Your task to perform on an android device: install app "Upside-Cash back on gas & food" Image 0: 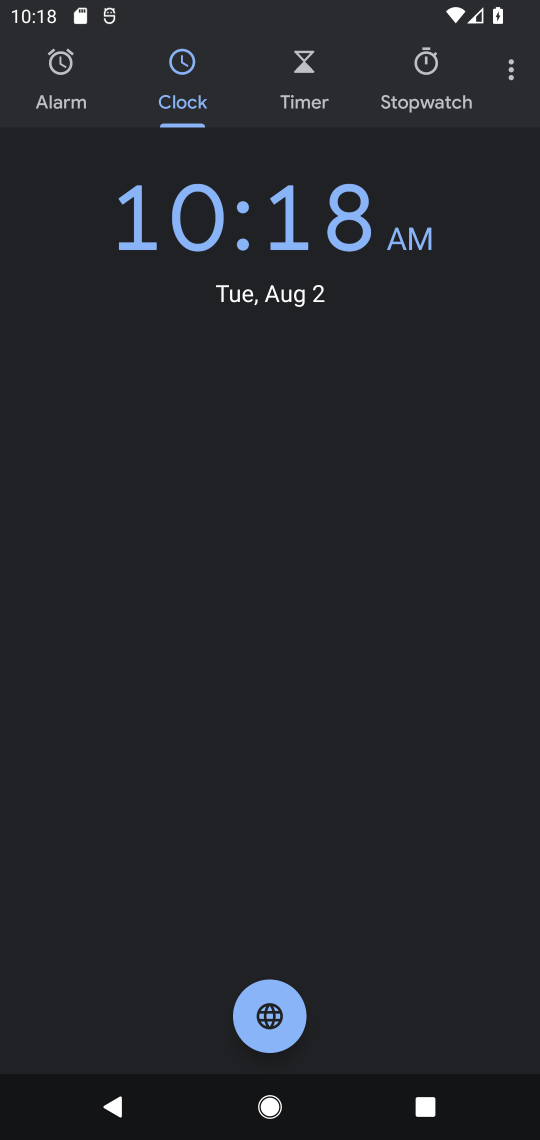
Step 0: press home button
Your task to perform on an android device: install app "Upside-Cash back on gas & food" Image 1: 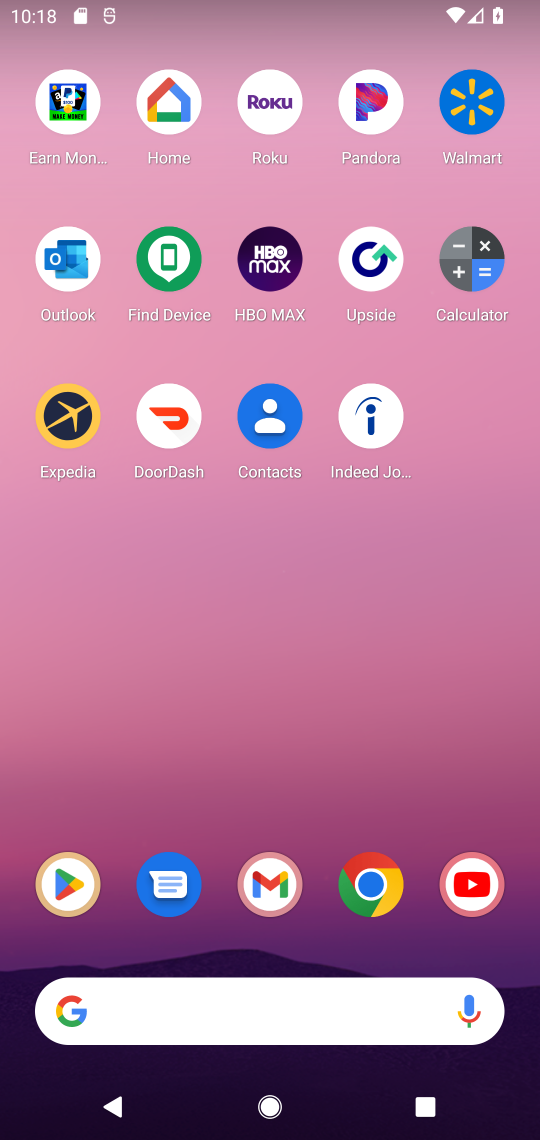
Step 1: click (72, 874)
Your task to perform on an android device: install app "Upside-Cash back on gas & food" Image 2: 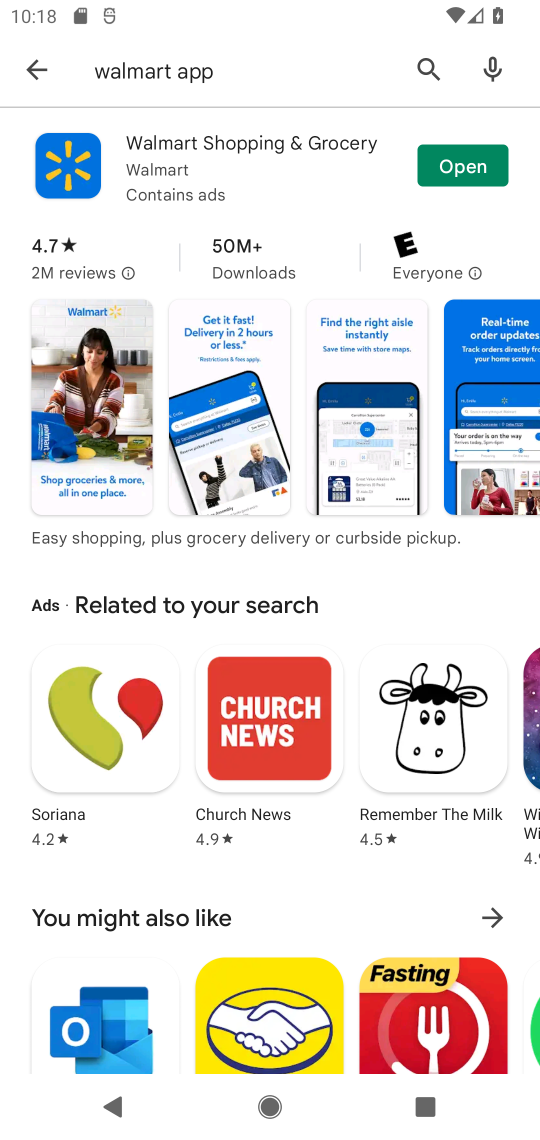
Step 2: click (216, 68)
Your task to perform on an android device: install app "Upside-Cash back on gas & food" Image 3: 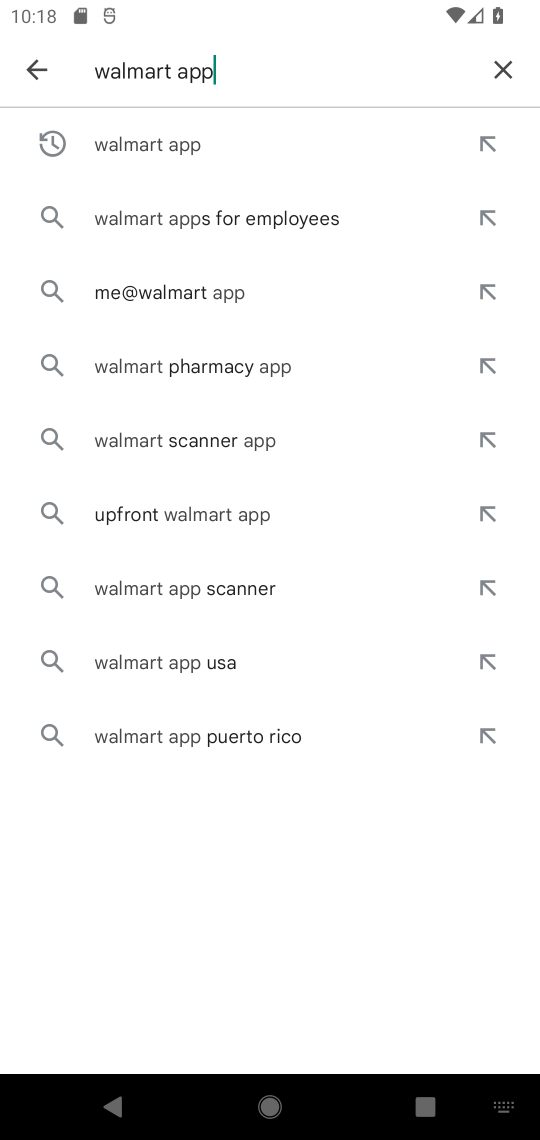
Step 3: click (500, 85)
Your task to perform on an android device: install app "Upside-Cash back on gas & food" Image 4: 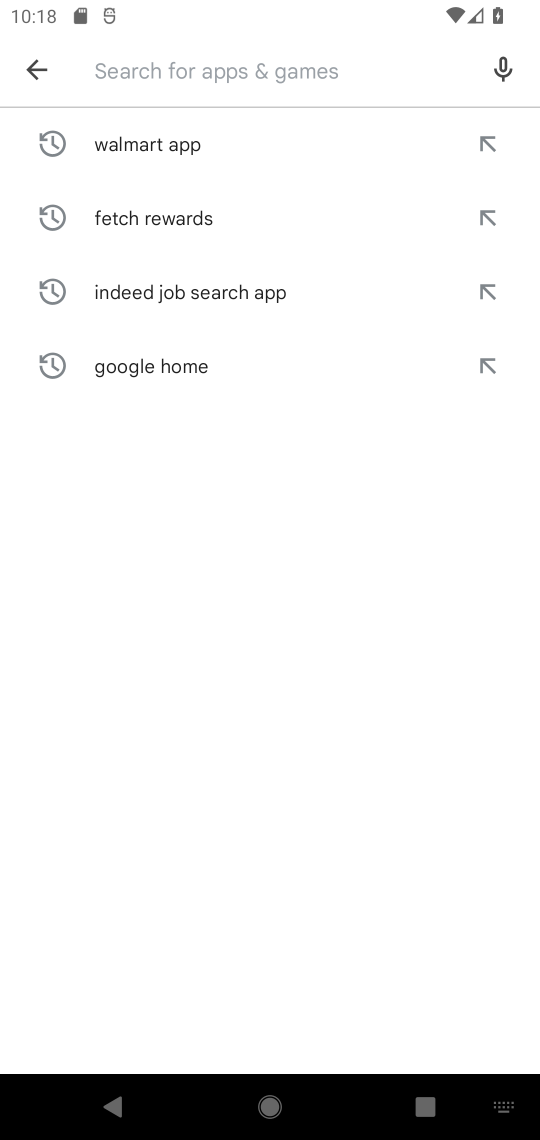
Step 4: type "upside "
Your task to perform on an android device: install app "Upside-Cash back on gas & food" Image 5: 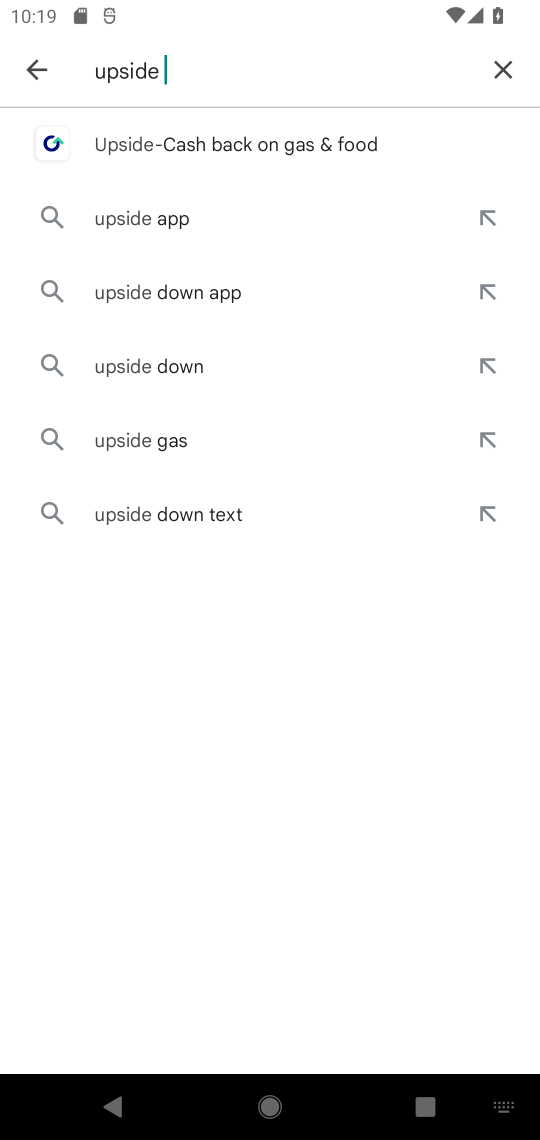
Step 5: click (280, 134)
Your task to perform on an android device: install app "Upside-Cash back on gas & food" Image 6: 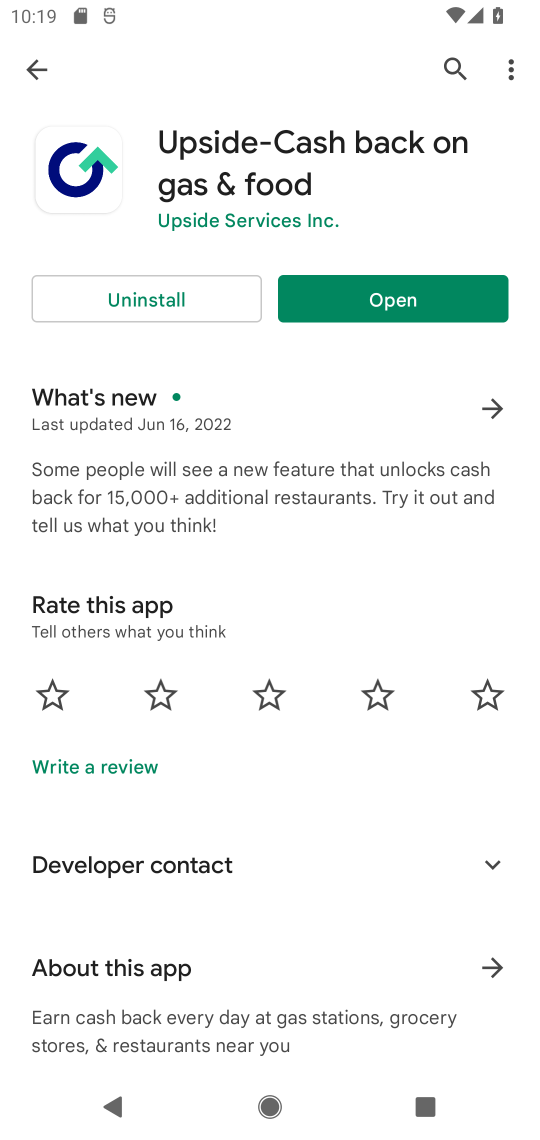
Step 6: task complete